Your task to perform on an android device: Show me popular games on the Play Store Image 0: 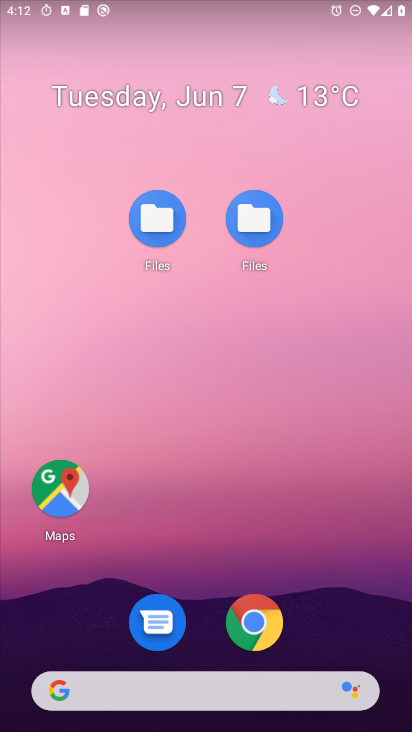
Step 0: drag from (357, 591) to (390, 247)
Your task to perform on an android device: Show me popular games on the Play Store Image 1: 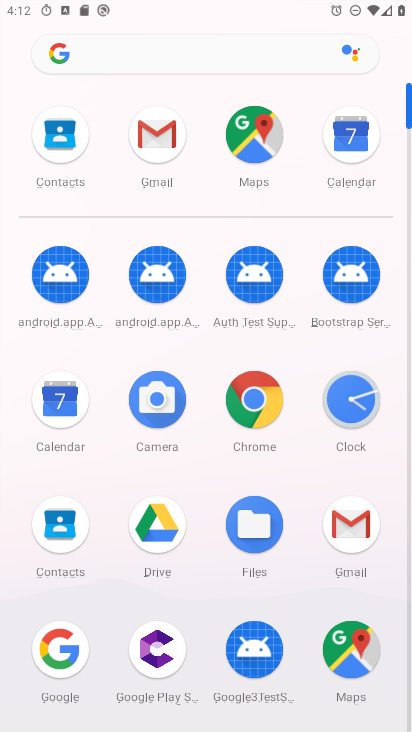
Step 1: click (410, 434)
Your task to perform on an android device: Show me popular games on the Play Store Image 2: 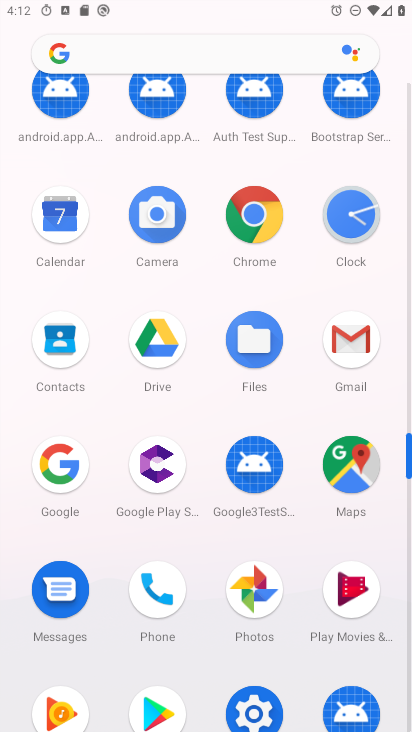
Step 2: click (149, 698)
Your task to perform on an android device: Show me popular games on the Play Store Image 3: 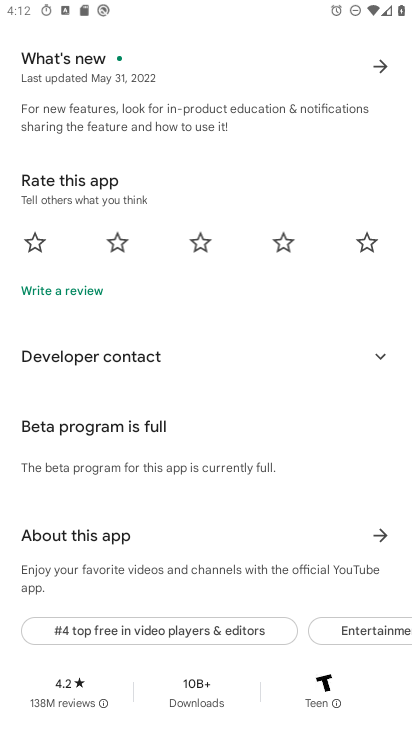
Step 3: press back button
Your task to perform on an android device: Show me popular games on the Play Store Image 4: 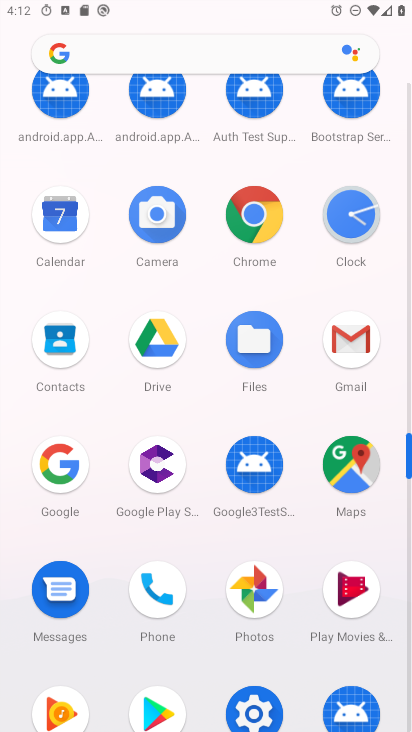
Step 4: click (165, 709)
Your task to perform on an android device: Show me popular games on the Play Store Image 5: 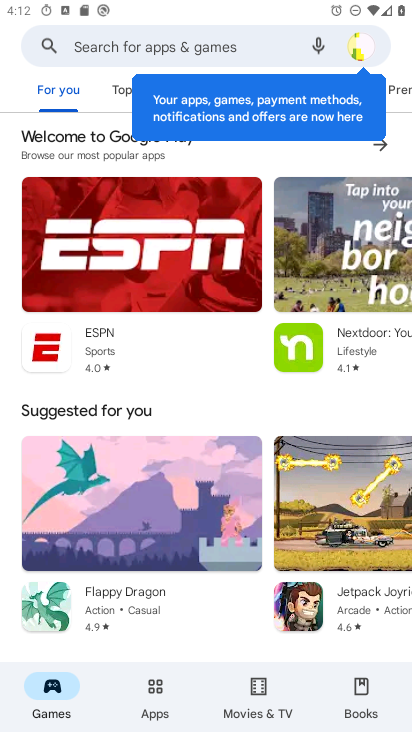
Step 5: click (164, 47)
Your task to perform on an android device: Show me popular games on the Play Store Image 6: 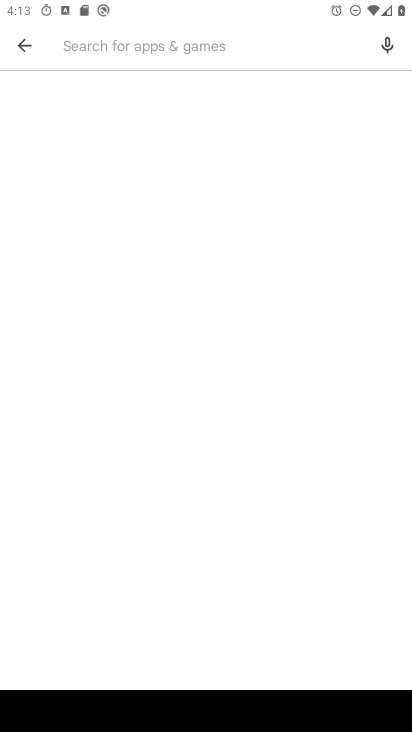
Step 6: type "popular game"
Your task to perform on an android device: Show me popular games on the Play Store Image 7: 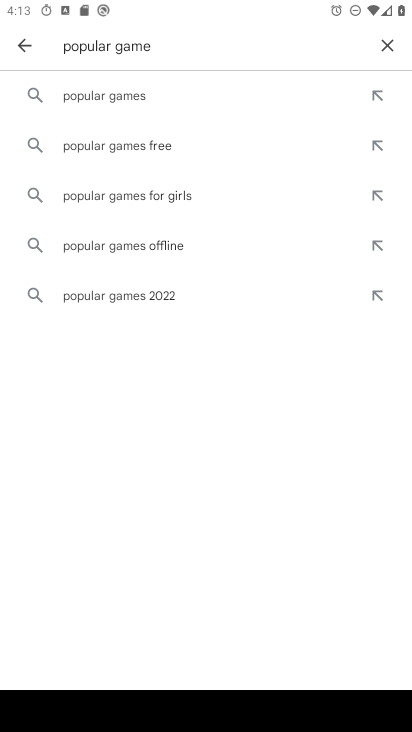
Step 7: click (182, 99)
Your task to perform on an android device: Show me popular games on the Play Store Image 8: 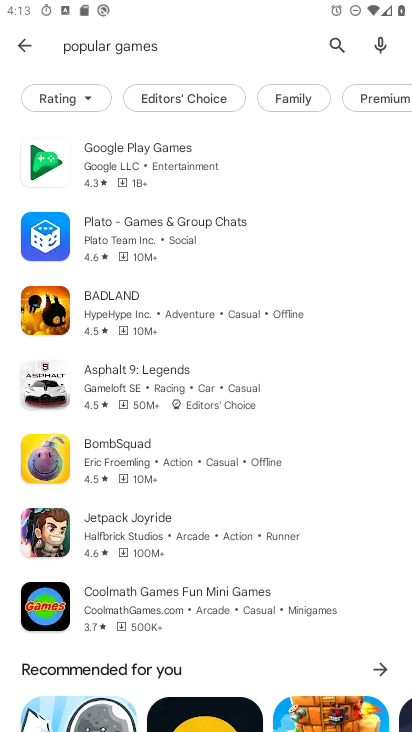
Step 8: task complete